Your task to perform on an android device: open app "Skype" (install if not already installed) Image 0: 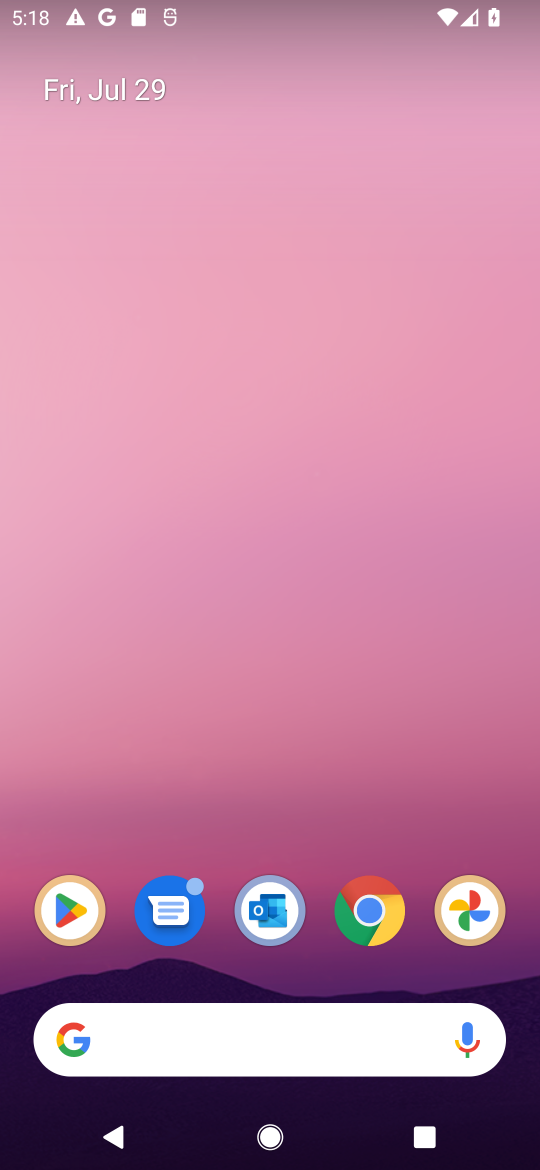
Step 0: drag from (196, 631) to (165, 99)
Your task to perform on an android device: open app "Skype" (install if not already installed) Image 1: 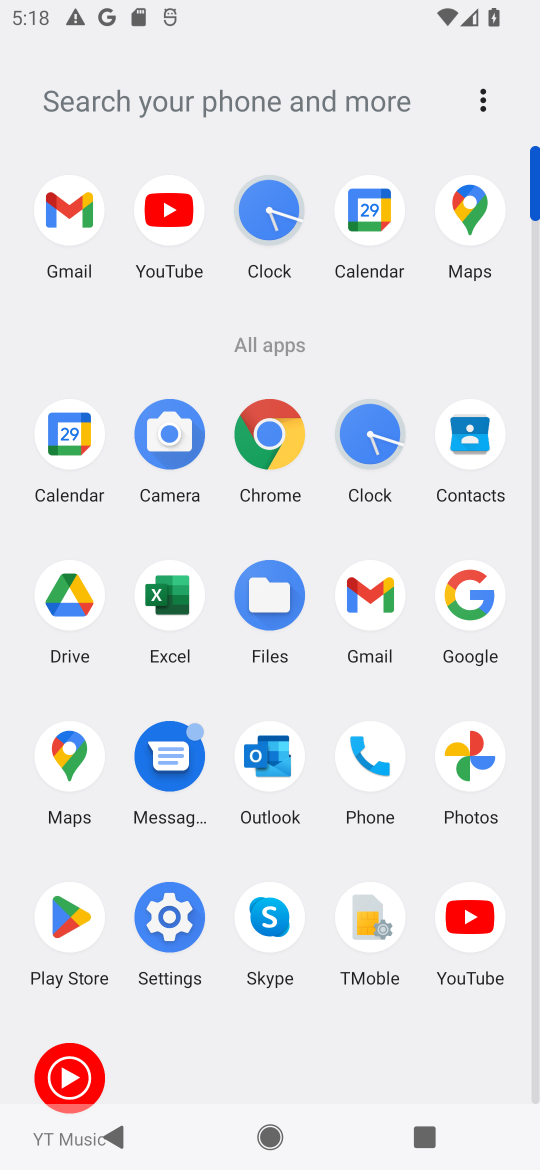
Step 1: click (278, 906)
Your task to perform on an android device: open app "Skype" (install if not already installed) Image 2: 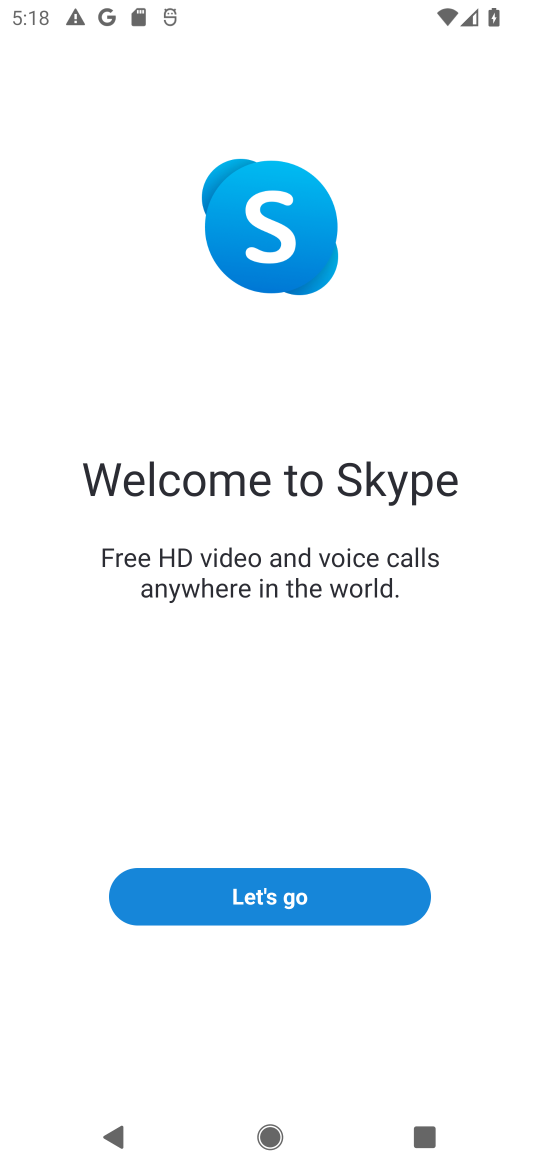
Step 2: task complete